Your task to perform on an android device: turn on airplane mode Image 0: 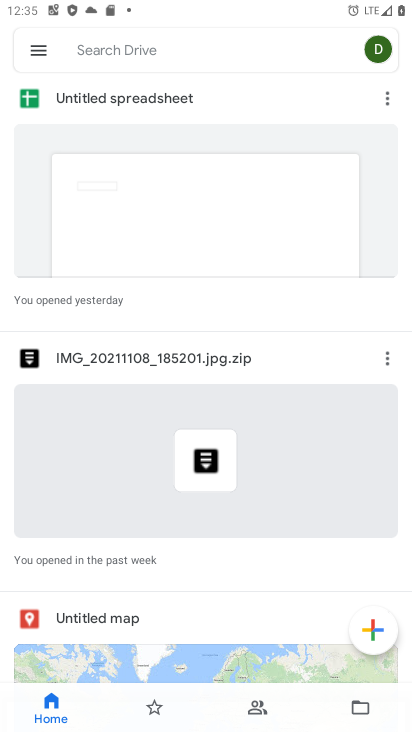
Step 0: press home button
Your task to perform on an android device: turn on airplane mode Image 1: 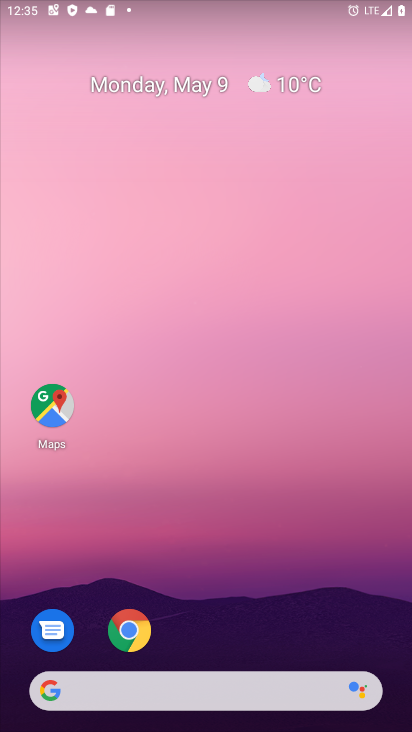
Step 1: drag from (149, 3) to (143, 547)
Your task to perform on an android device: turn on airplane mode Image 2: 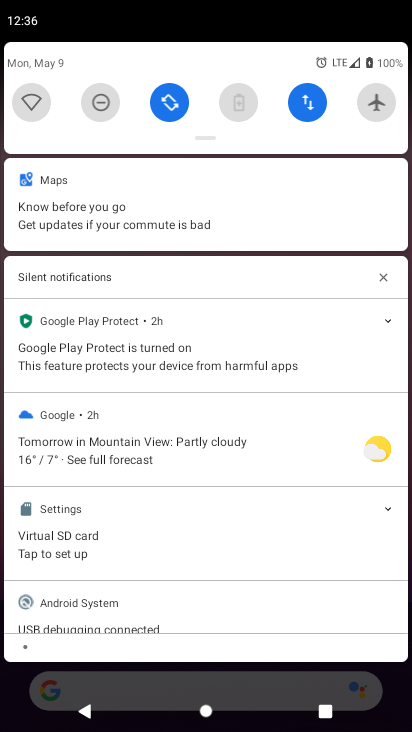
Step 2: click (382, 112)
Your task to perform on an android device: turn on airplane mode Image 3: 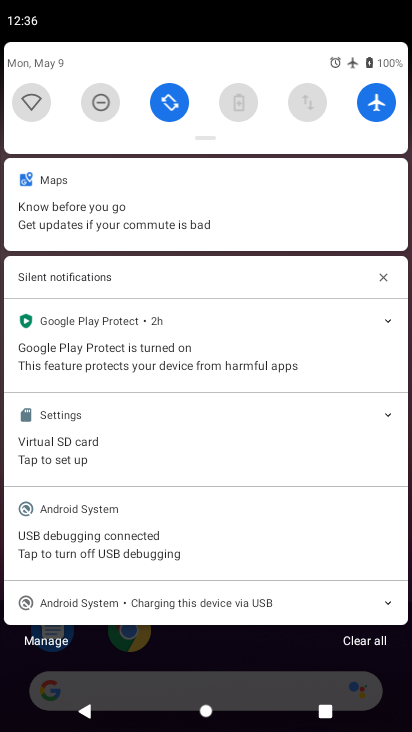
Step 3: task complete